Your task to perform on an android device: Open Android settings Image 0: 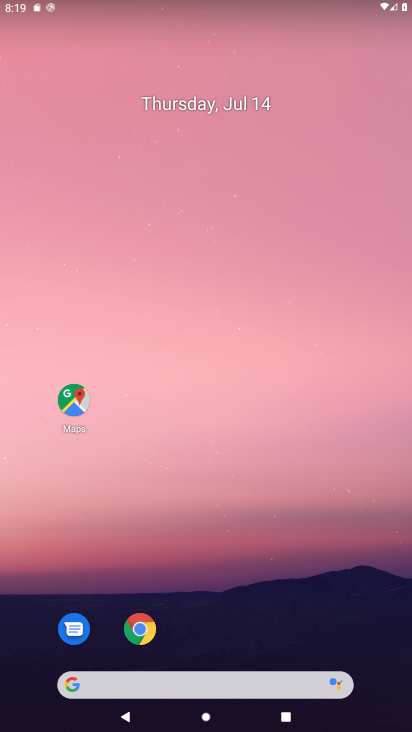
Step 0: drag from (241, 640) to (217, 30)
Your task to perform on an android device: Open Android settings Image 1: 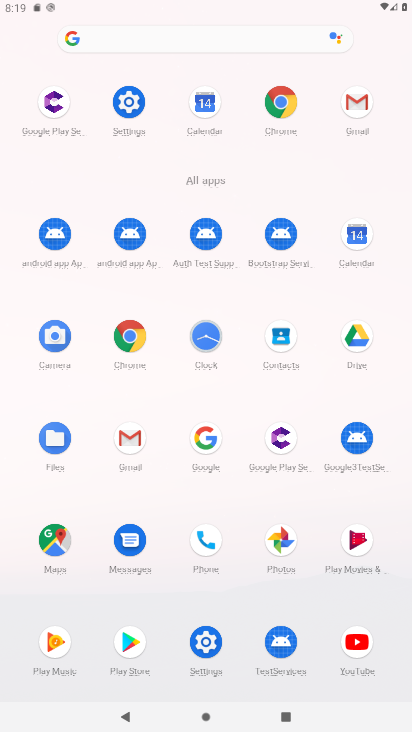
Step 1: click (207, 644)
Your task to perform on an android device: Open Android settings Image 2: 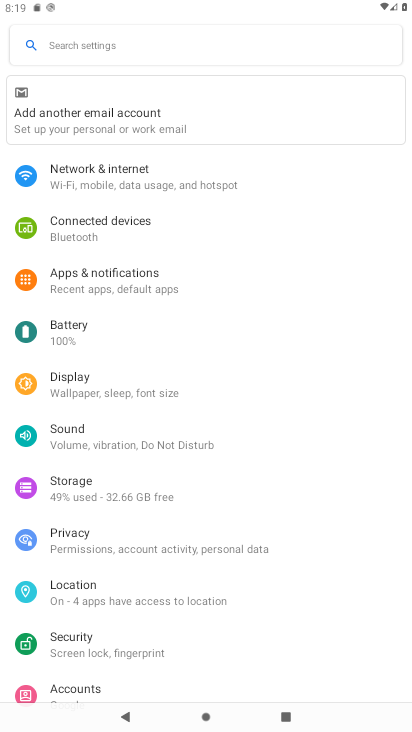
Step 2: drag from (168, 538) to (165, 10)
Your task to perform on an android device: Open Android settings Image 3: 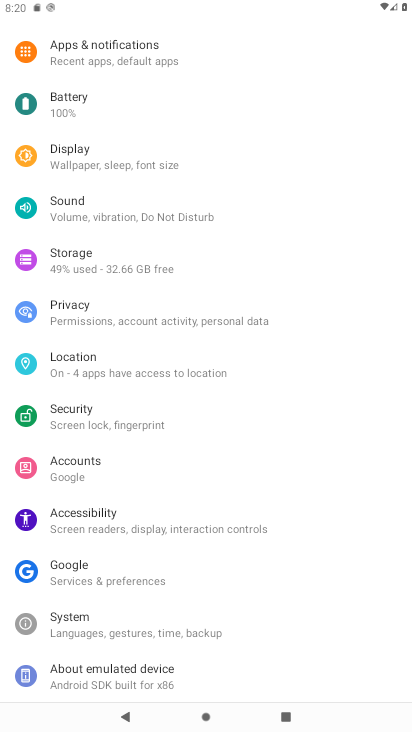
Step 3: drag from (181, 586) to (175, 217)
Your task to perform on an android device: Open Android settings Image 4: 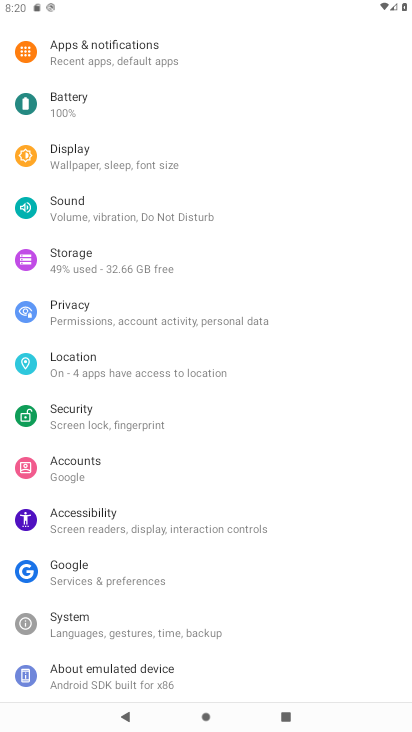
Step 4: click (97, 677)
Your task to perform on an android device: Open Android settings Image 5: 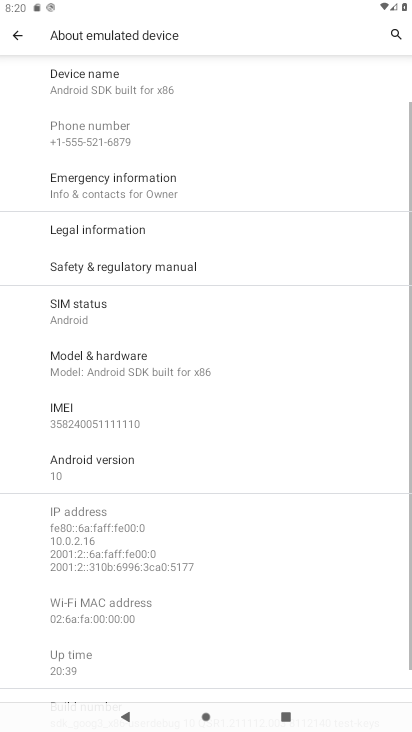
Step 5: click (99, 457)
Your task to perform on an android device: Open Android settings Image 6: 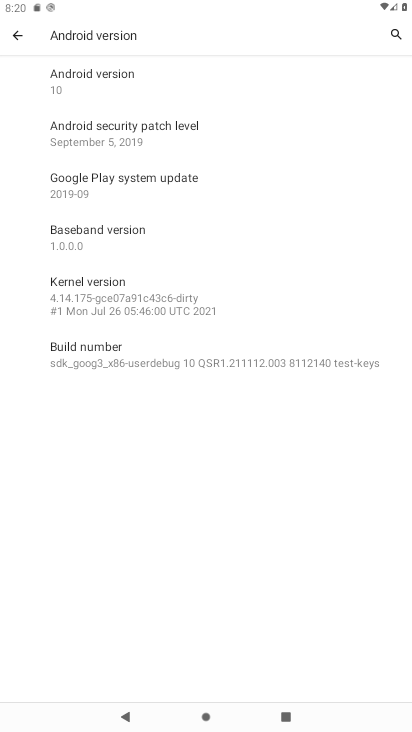
Step 6: task complete